Your task to perform on an android device: Search for the best rated headphones on Walmart Image 0: 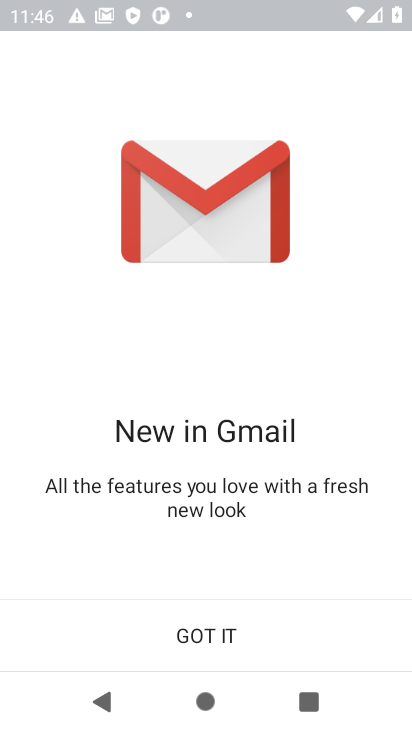
Step 0: press home button
Your task to perform on an android device: Search for the best rated headphones on Walmart Image 1: 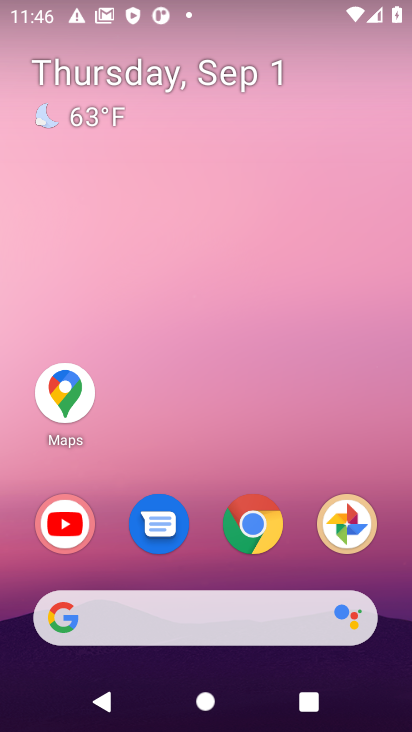
Step 1: click (252, 526)
Your task to perform on an android device: Search for the best rated headphones on Walmart Image 2: 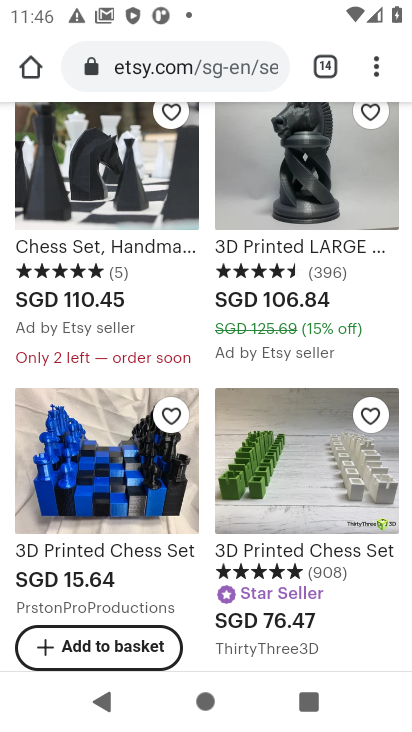
Step 2: click (324, 65)
Your task to perform on an android device: Search for the best rated headphones on Walmart Image 3: 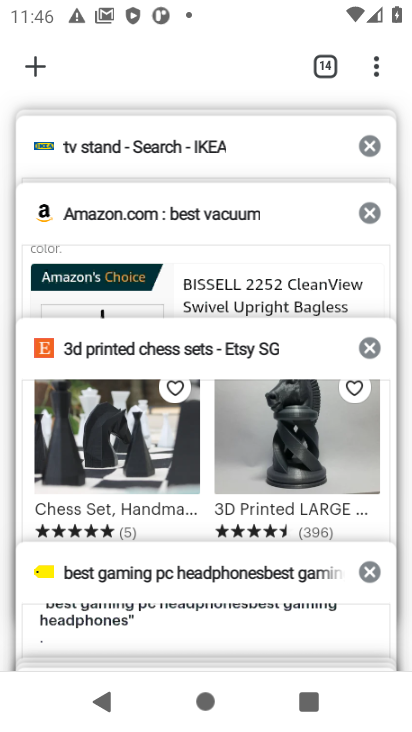
Step 3: click (33, 71)
Your task to perform on an android device: Search for the best rated headphones on Walmart Image 4: 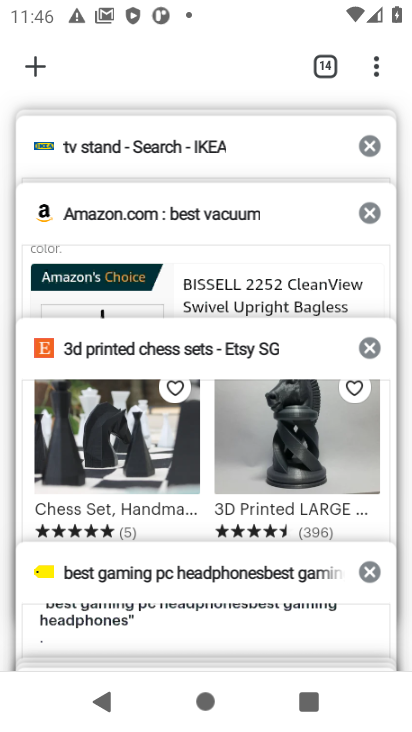
Step 4: click (30, 63)
Your task to perform on an android device: Search for the best rated headphones on Walmart Image 5: 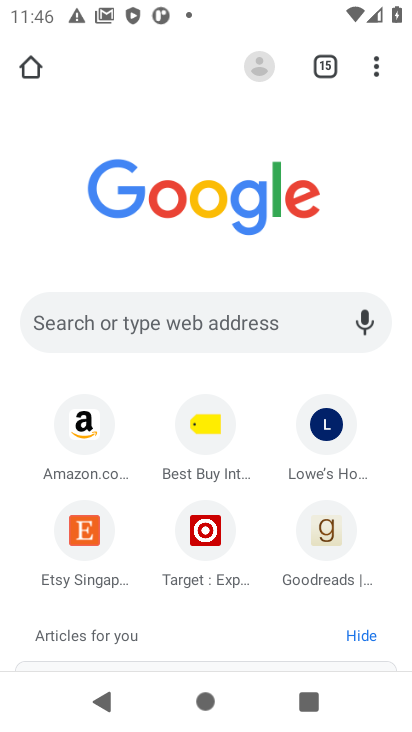
Step 5: click (124, 326)
Your task to perform on an android device: Search for the best rated headphones on Walmart Image 6: 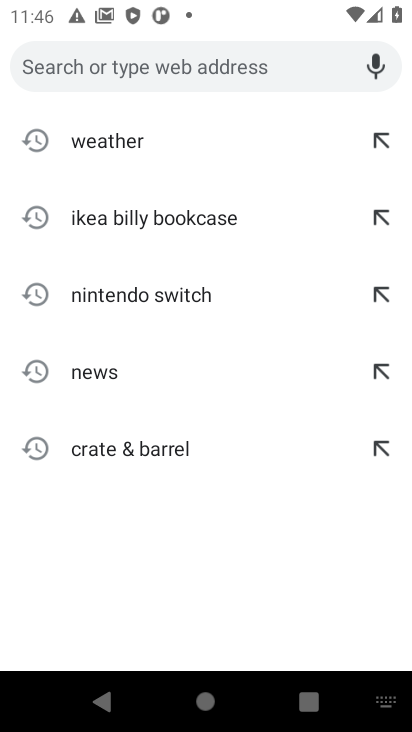
Step 6: type "walmart"
Your task to perform on an android device: Search for the best rated headphones on Walmart Image 7: 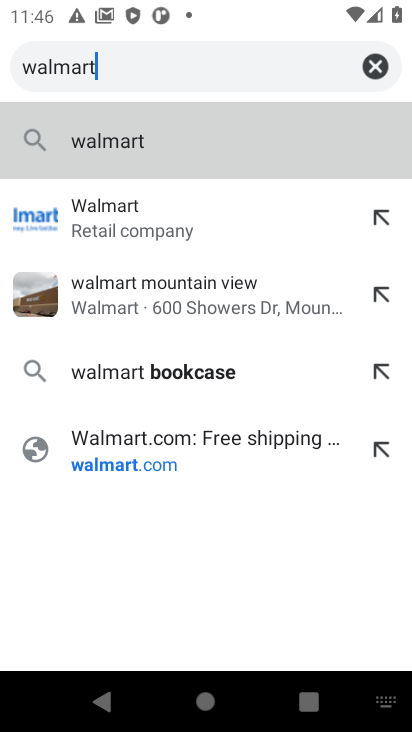
Step 7: click (93, 455)
Your task to perform on an android device: Search for the best rated headphones on Walmart Image 8: 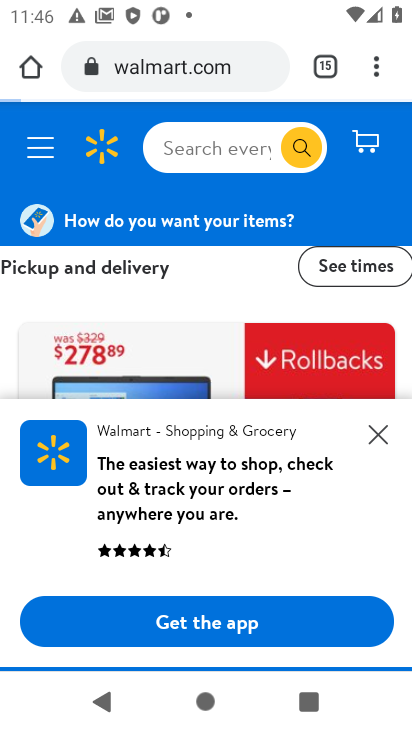
Step 8: click (229, 147)
Your task to perform on an android device: Search for the best rated headphones on Walmart Image 9: 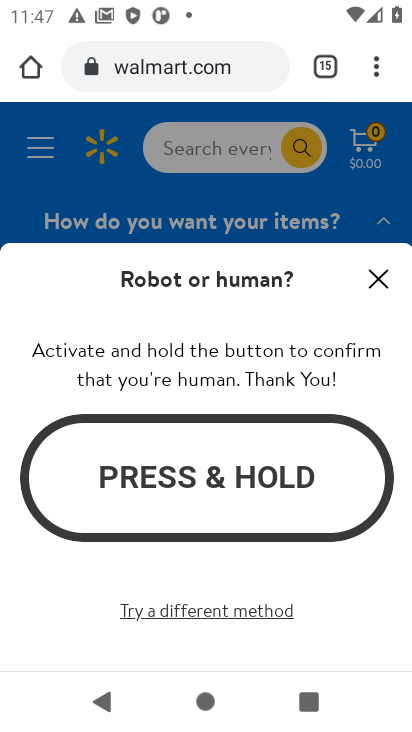
Step 9: click (377, 273)
Your task to perform on an android device: Search for the best rated headphones on Walmart Image 10: 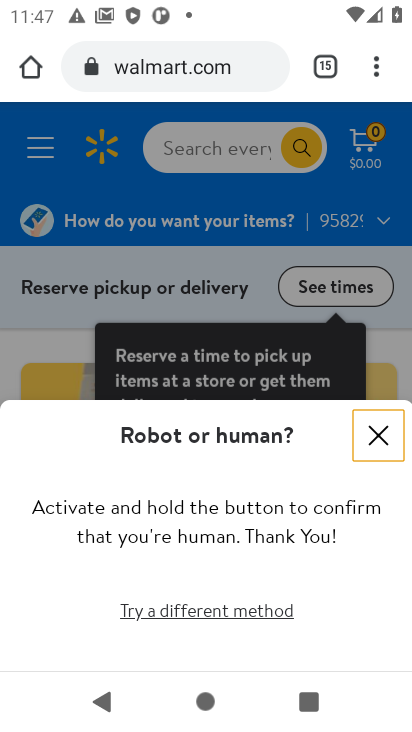
Step 10: click (238, 163)
Your task to perform on an android device: Search for the best rated headphones on Walmart Image 11: 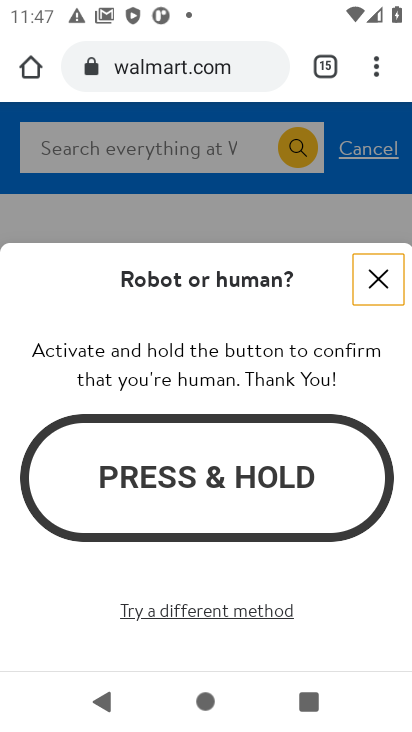
Step 11: click (221, 611)
Your task to perform on an android device: Search for the best rated headphones on Walmart Image 12: 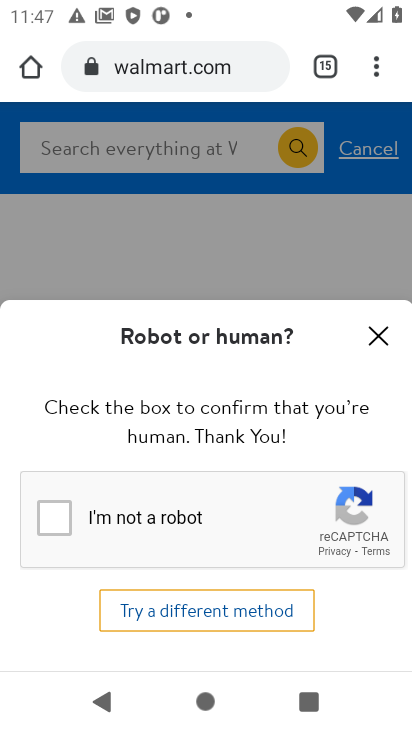
Step 12: click (65, 524)
Your task to perform on an android device: Search for the best rated headphones on Walmart Image 13: 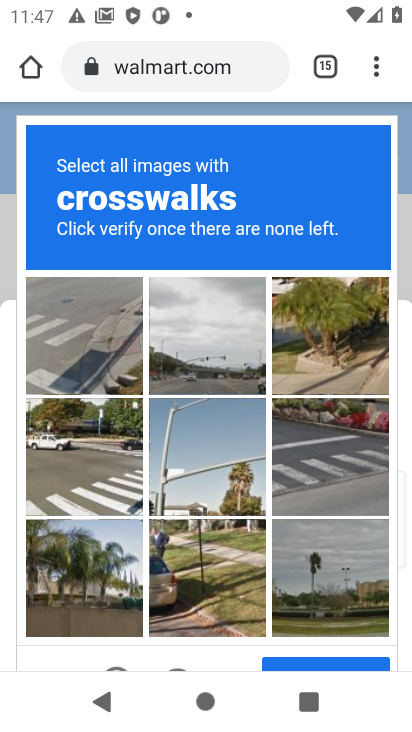
Step 13: click (103, 318)
Your task to perform on an android device: Search for the best rated headphones on Walmart Image 14: 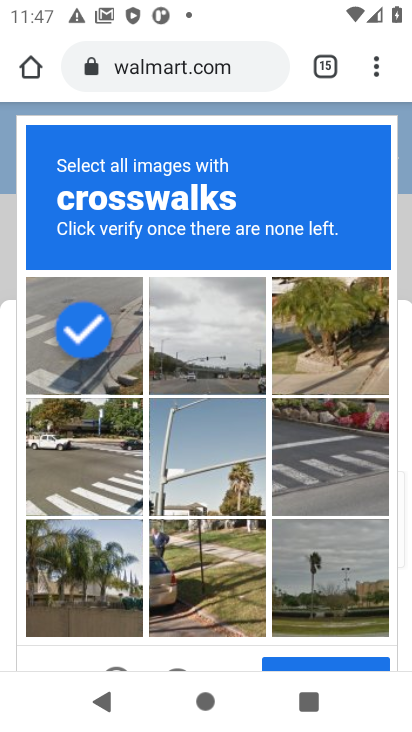
Step 14: click (80, 471)
Your task to perform on an android device: Search for the best rated headphones on Walmart Image 15: 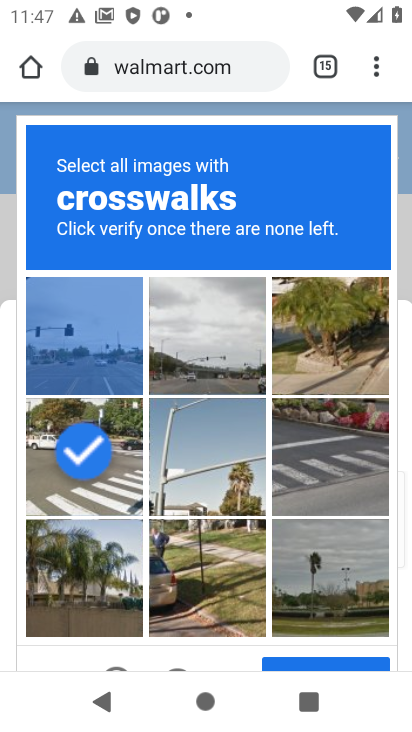
Step 15: click (324, 457)
Your task to perform on an android device: Search for the best rated headphones on Walmart Image 16: 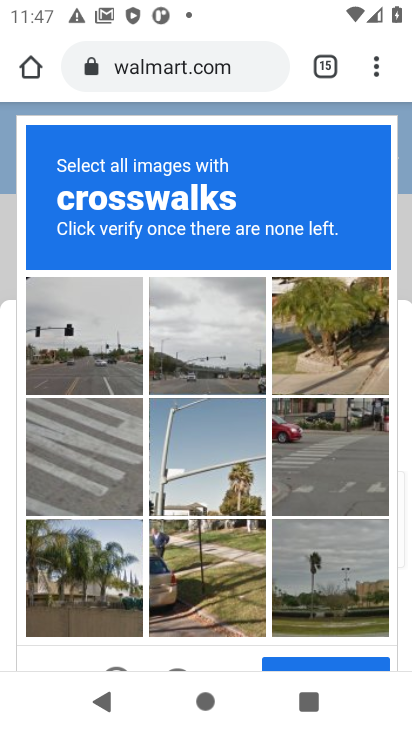
Step 16: click (59, 442)
Your task to perform on an android device: Search for the best rated headphones on Walmart Image 17: 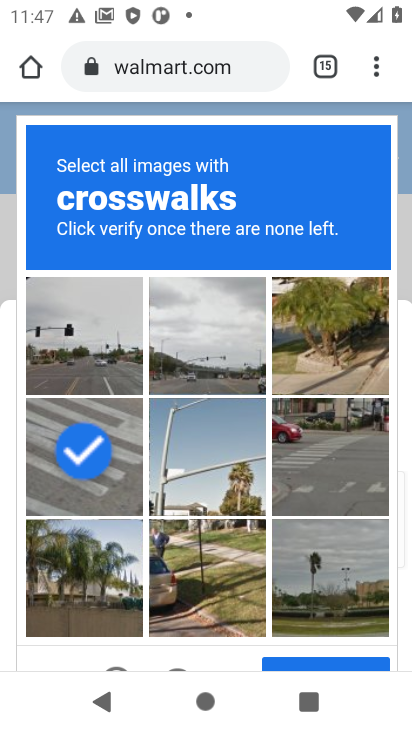
Step 17: click (300, 470)
Your task to perform on an android device: Search for the best rated headphones on Walmart Image 18: 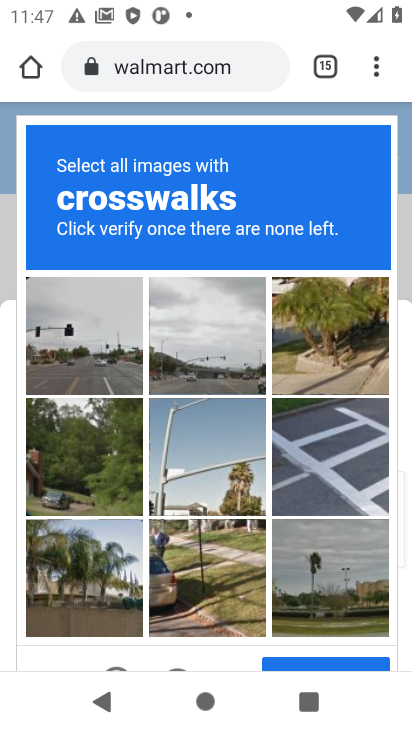
Step 18: click (300, 470)
Your task to perform on an android device: Search for the best rated headphones on Walmart Image 19: 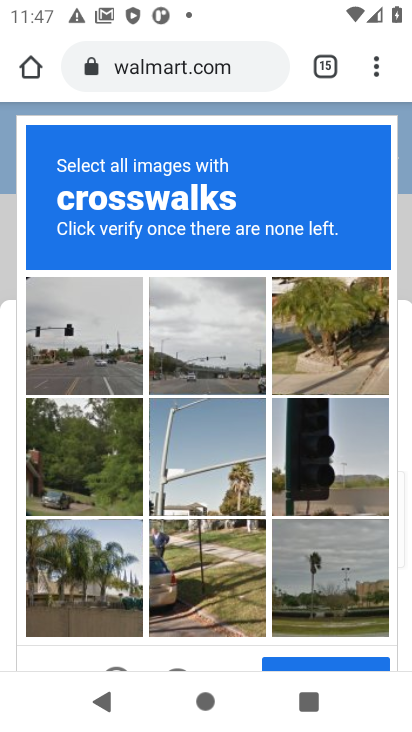
Step 19: click (313, 666)
Your task to perform on an android device: Search for the best rated headphones on Walmart Image 20: 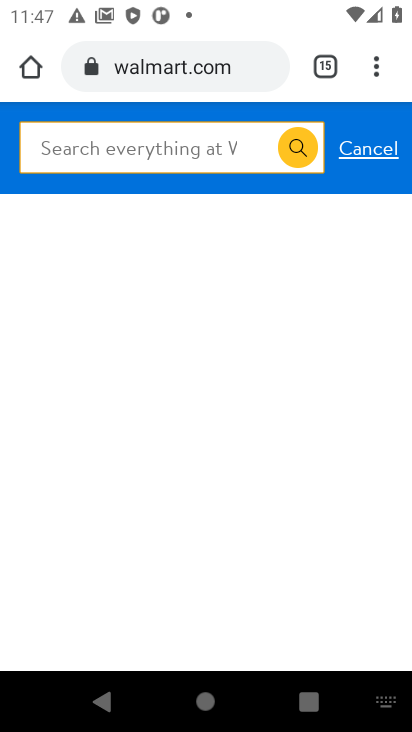
Step 20: click (190, 153)
Your task to perform on an android device: Search for the best rated headphones on Walmart Image 21: 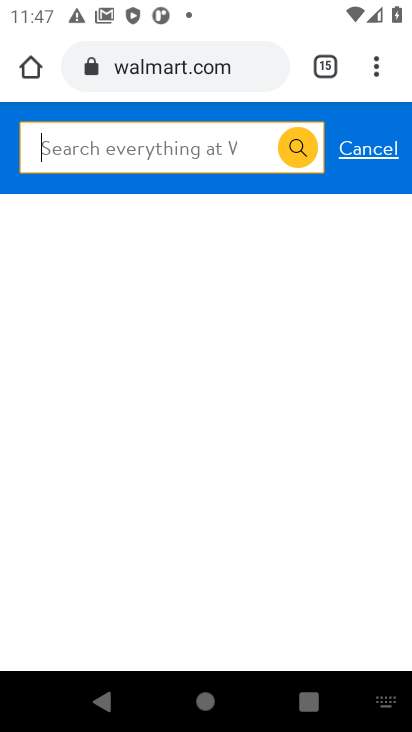
Step 21: type "best rated headphones"
Your task to perform on an android device: Search for the best rated headphones on Walmart Image 22: 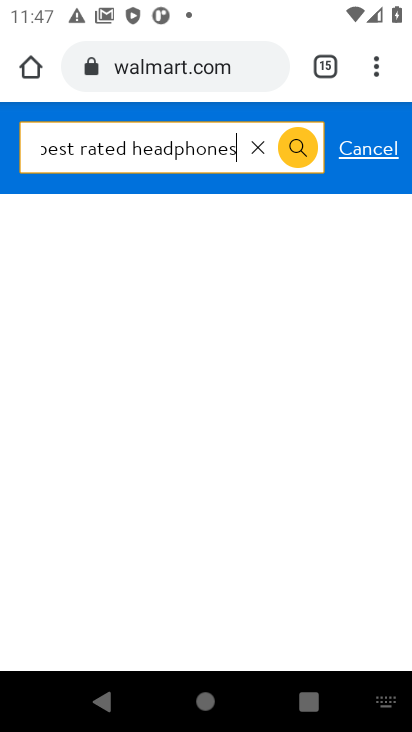
Step 22: click (299, 146)
Your task to perform on an android device: Search for the best rated headphones on Walmart Image 23: 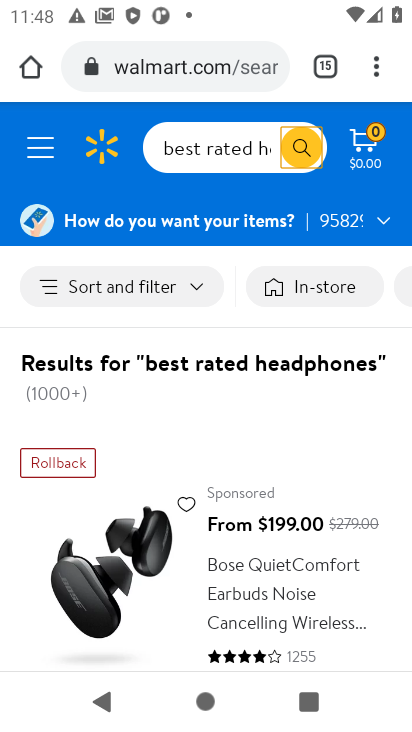
Step 23: task complete